Your task to perform on an android device: Add "usb-c to usb-a" to the cart on bestbuy Image 0: 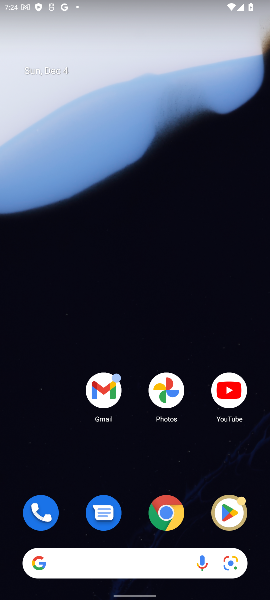
Step 0: click (158, 502)
Your task to perform on an android device: Add "usb-c to usb-a" to the cart on bestbuy Image 1: 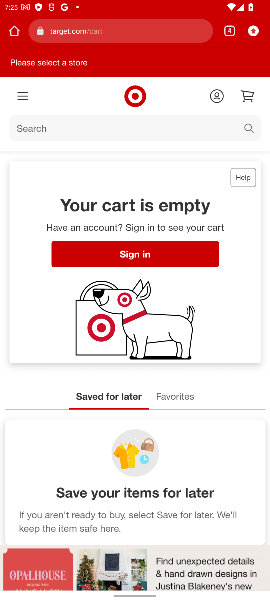
Step 1: click (236, 29)
Your task to perform on an android device: Add "usb-c to usb-a" to the cart on bestbuy Image 2: 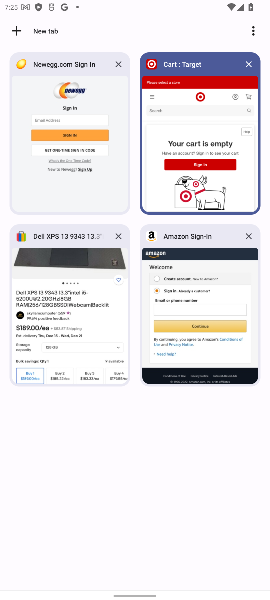
Step 2: click (12, 33)
Your task to perform on an android device: Add "usb-c to usb-a" to the cart on bestbuy Image 3: 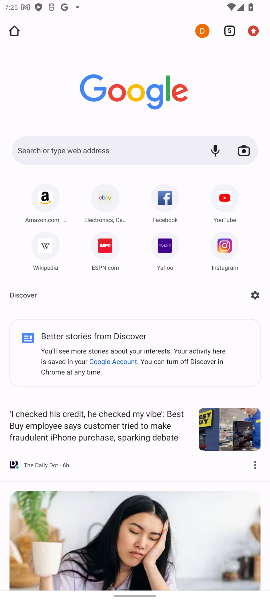
Step 3: click (89, 148)
Your task to perform on an android device: Add "usb-c to usb-a" to the cart on bestbuy Image 4: 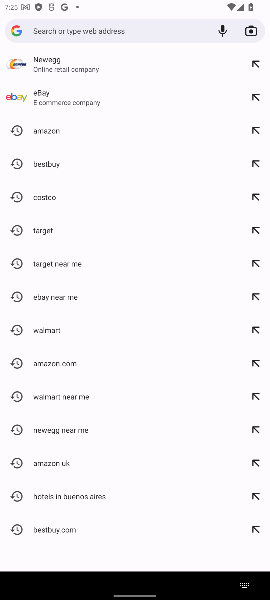
Step 4: type "bestbuy"
Your task to perform on an android device: Add "usb-c to usb-a" to the cart on bestbuy Image 5: 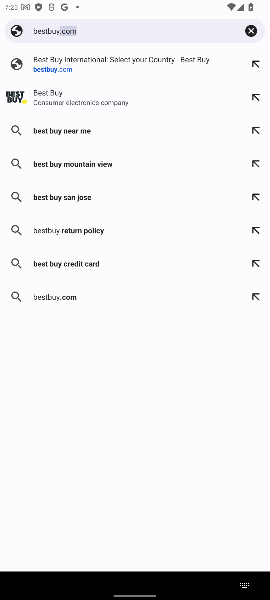
Step 5: click (37, 97)
Your task to perform on an android device: Add "usb-c to usb-a" to the cart on bestbuy Image 6: 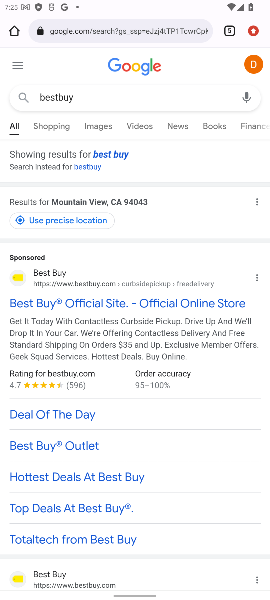
Step 6: click (99, 301)
Your task to perform on an android device: Add "usb-c to usb-a" to the cart on bestbuy Image 7: 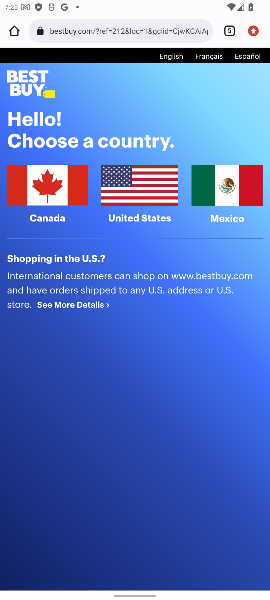
Step 7: click (171, 185)
Your task to perform on an android device: Add "usb-c to usb-a" to the cart on bestbuy Image 8: 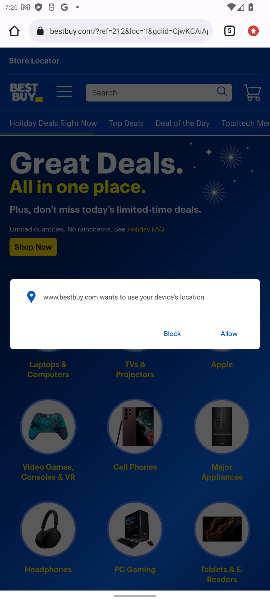
Step 8: click (171, 333)
Your task to perform on an android device: Add "usb-c to usb-a" to the cart on bestbuy Image 9: 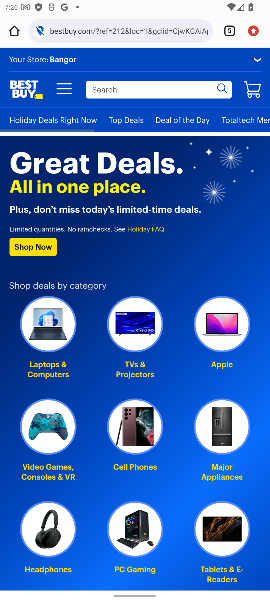
Step 9: click (172, 92)
Your task to perform on an android device: Add "usb-c to usb-a" to the cart on bestbuy Image 10: 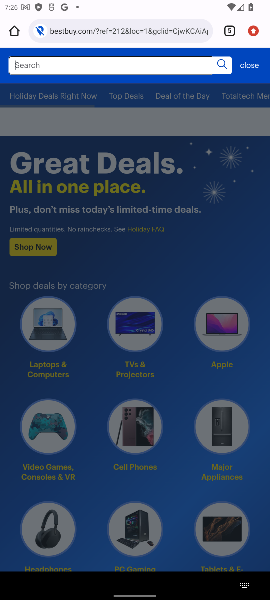
Step 10: type "usb-c to usb-a"
Your task to perform on an android device: Add "usb-c to usb-a" to the cart on bestbuy Image 11: 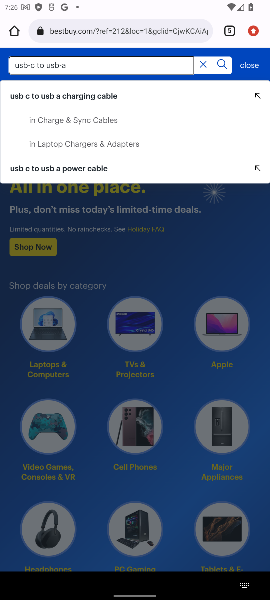
Step 11: click (89, 96)
Your task to perform on an android device: Add "usb-c to usb-a" to the cart on bestbuy Image 12: 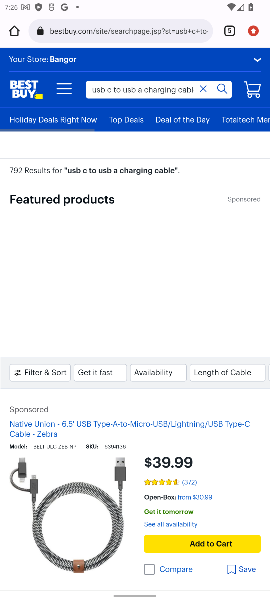
Step 12: click (206, 539)
Your task to perform on an android device: Add "usb-c to usb-a" to the cart on bestbuy Image 13: 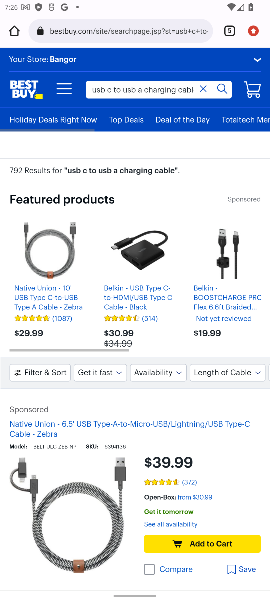
Step 13: click (218, 541)
Your task to perform on an android device: Add "usb-c to usb-a" to the cart on bestbuy Image 14: 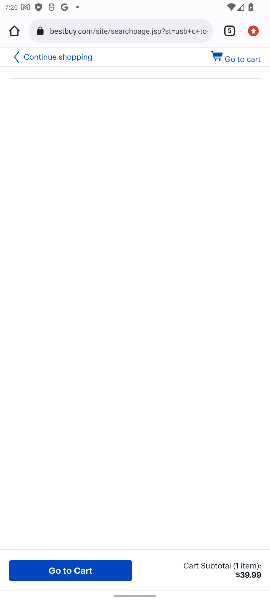
Step 14: task complete